Your task to perform on an android device: Search for pizza restaurants on Maps Image 0: 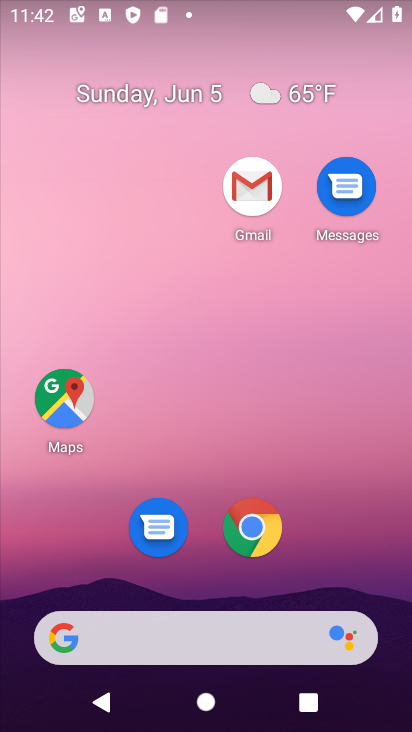
Step 0: click (61, 401)
Your task to perform on an android device: Search for pizza restaurants on Maps Image 1: 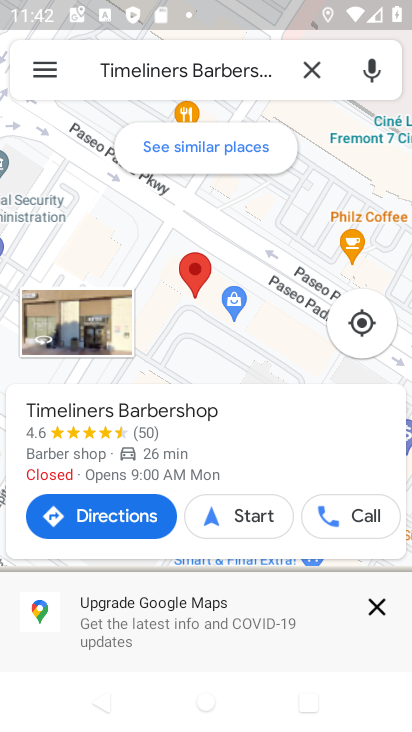
Step 1: click (312, 59)
Your task to perform on an android device: Search for pizza restaurants on Maps Image 2: 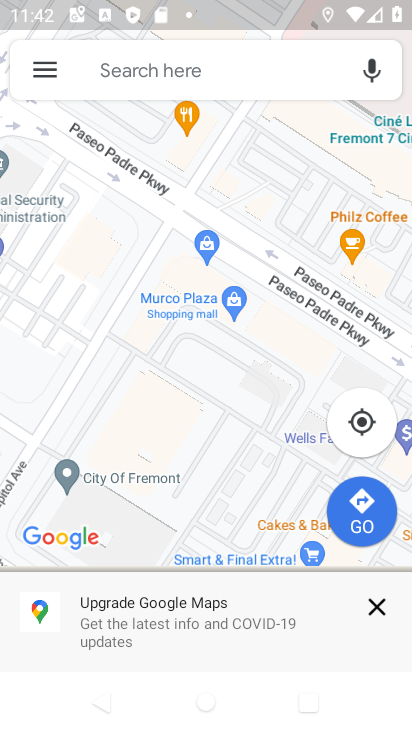
Step 2: click (196, 79)
Your task to perform on an android device: Search for pizza restaurants on Maps Image 3: 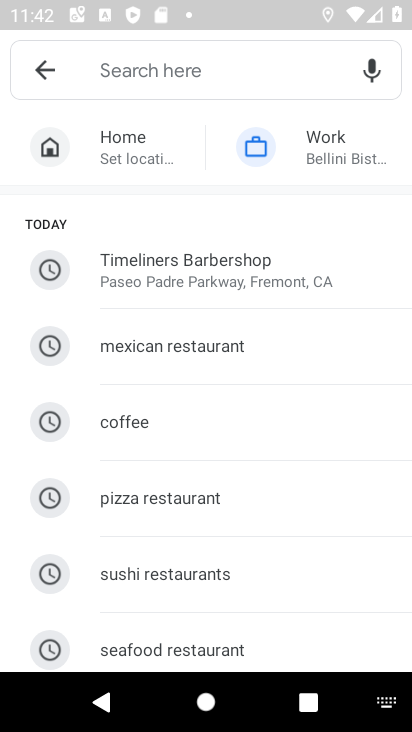
Step 3: click (210, 492)
Your task to perform on an android device: Search for pizza restaurants on Maps Image 4: 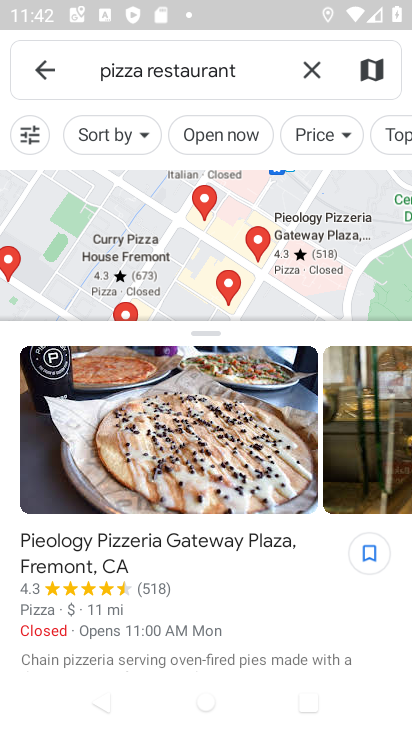
Step 4: task complete